Your task to perform on an android device: turn on data saver in the chrome app Image 0: 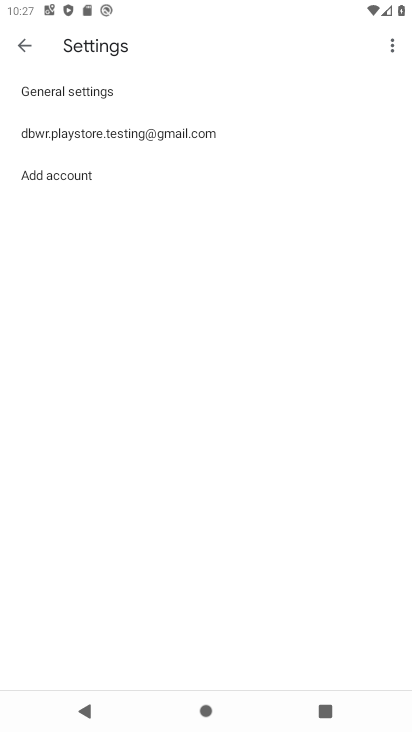
Step 0: press home button
Your task to perform on an android device: turn on data saver in the chrome app Image 1: 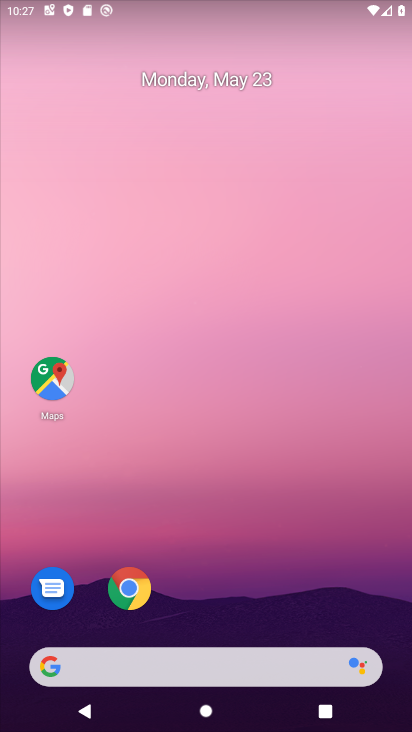
Step 1: drag from (245, 575) to (266, 117)
Your task to perform on an android device: turn on data saver in the chrome app Image 2: 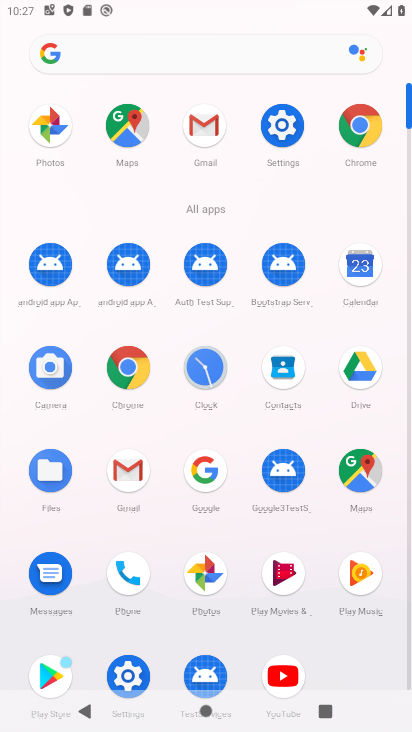
Step 2: click (126, 372)
Your task to perform on an android device: turn on data saver in the chrome app Image 3: 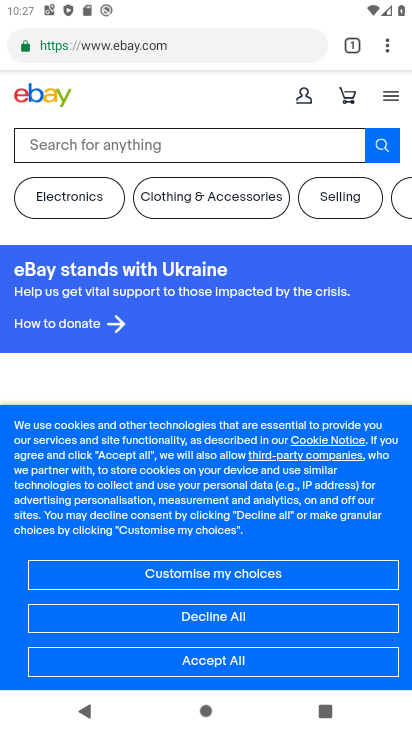
Step 3: drag from (388, 36) to (263, 548)
Your task to perform on an android device: turn on data saver in the chrome app Image 4: 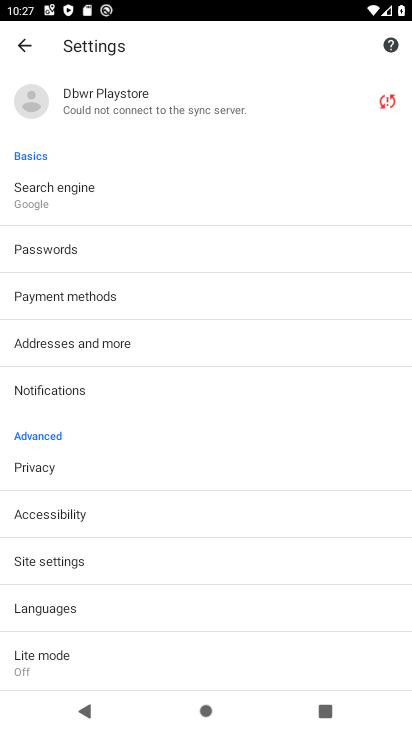
Step 4: click (95, 657)
Your task to perform on an android device: turn on data saver in the chrome app Image 5: 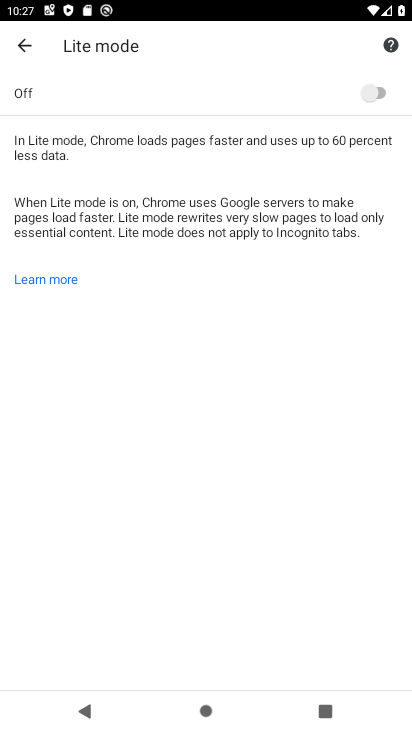
Step 5: click (369, 88)
Your task to perform on an android device: turn on data saver in the chrome app Image 6: 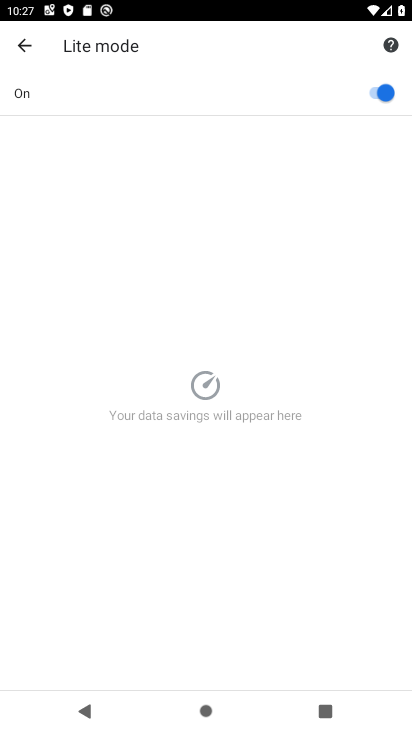
Step 6: task complete